Your task to perform on an android device: change notification settings in the gmail app Image 0: 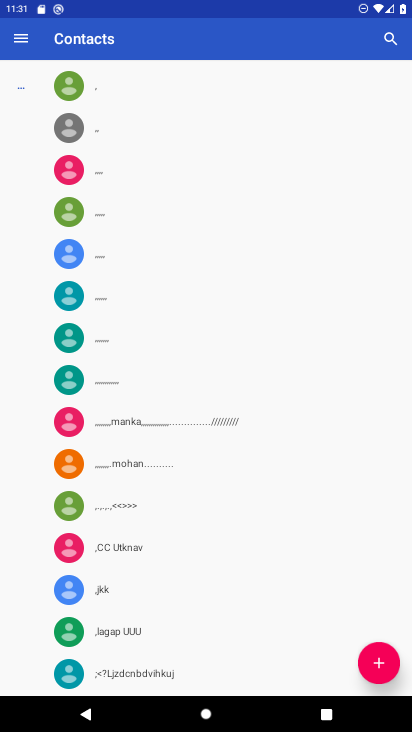
Step 0: press home button
Your task to perform on an android device: change notification settings in the gmail app Image 1: 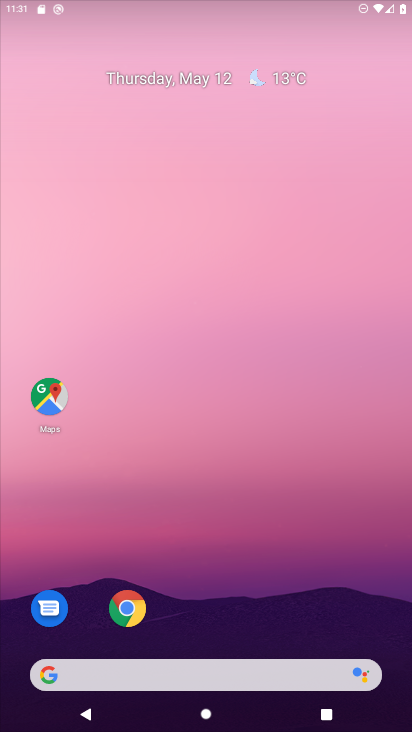
Step 1: drag from (214, 609) to (203, 93)
Your task to perform on an android device: change notification settings in the gmail app Image 2: 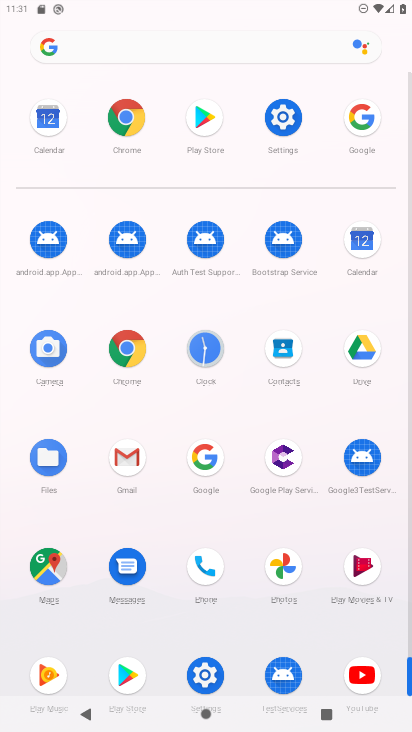
Step 2: click (135, 454)
Your task to perform on an android device: change notification settings in the gmail app Image 3: 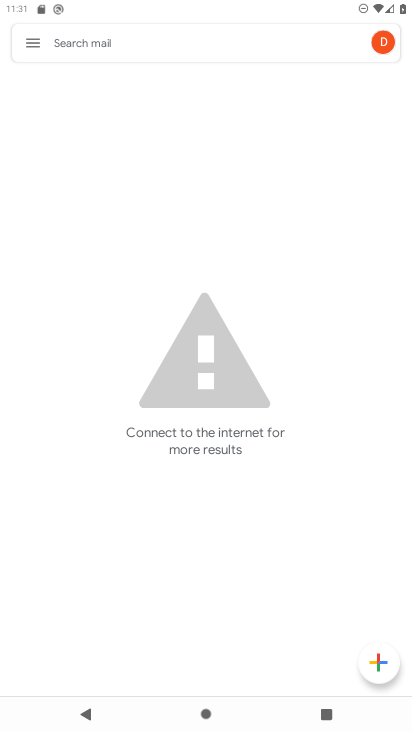
Step 3: click (35, 45)
Your task to perform on an android device: change notification settings in the gmail app Image 4: 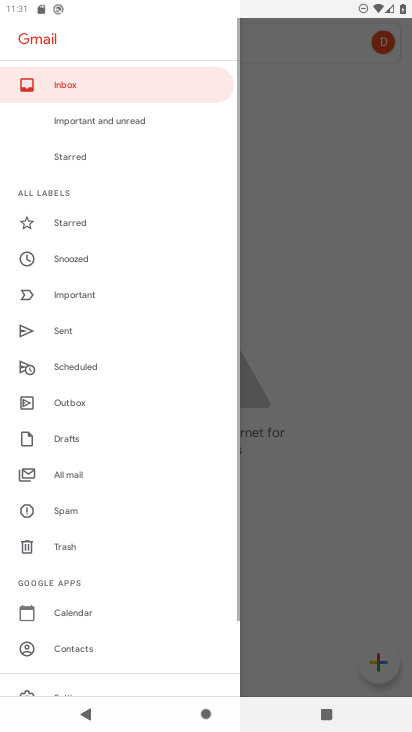
Step 4: drag from (144, 591) to (178, 255)
Your task to perform on an android device: change notification settings in the gmail app Image 5: 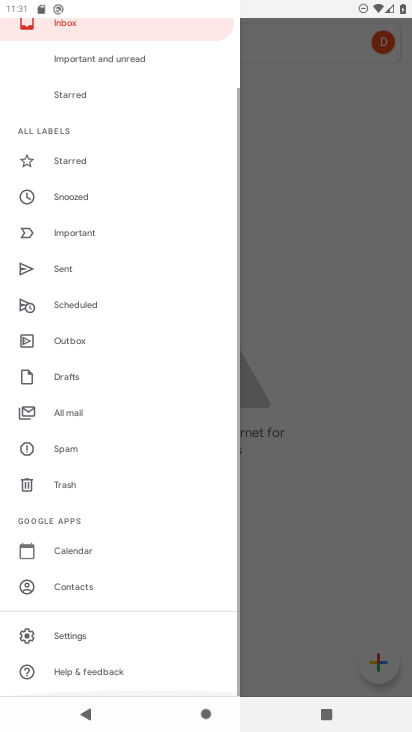
Step 5: click (85, 641)
Your task to perform on an android device: change notification settings in the gmail app Image 6: 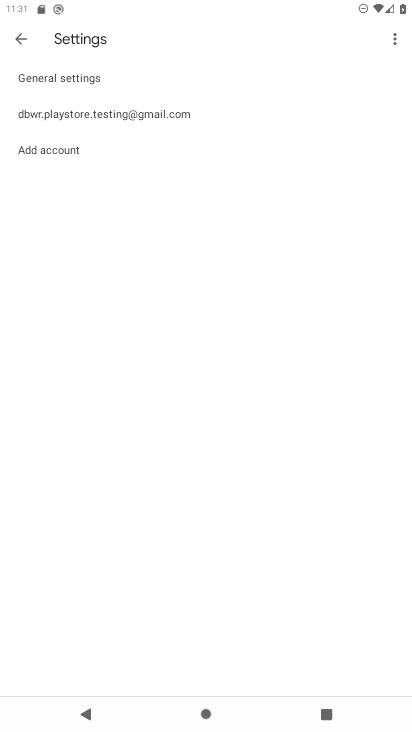
Step 6: click (100, 117)
Your task to perform on an android device: change notification settings in the gmail app Image 7: 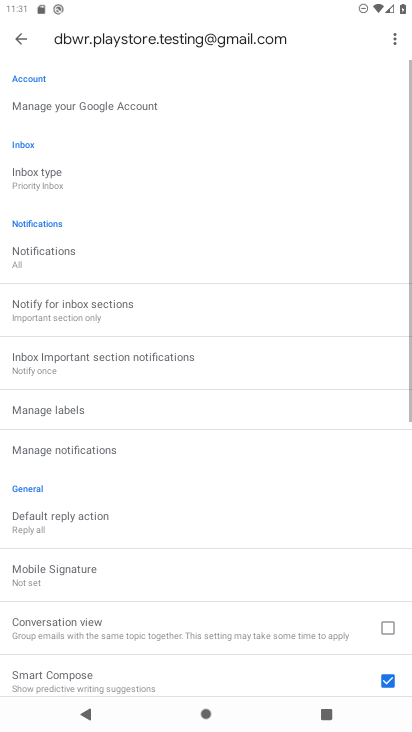
Step 7: click (51, 266)
Your task to perform on an android device: change notification settings in the gmail app Image 8: 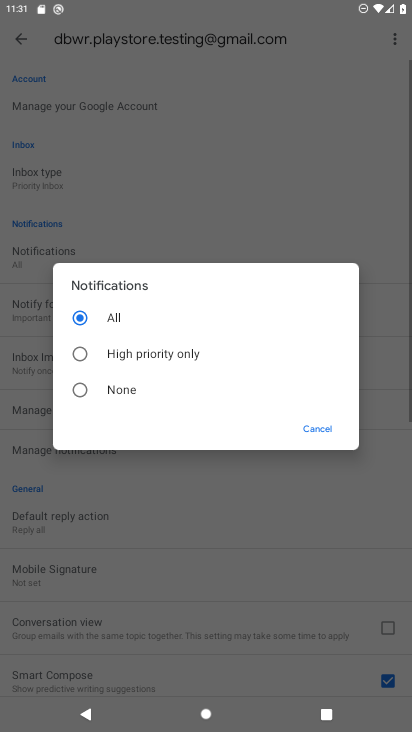
Step 8: click (101, 387)
Your task to perform on an android device: change notification settings in the gmail app Image 9: 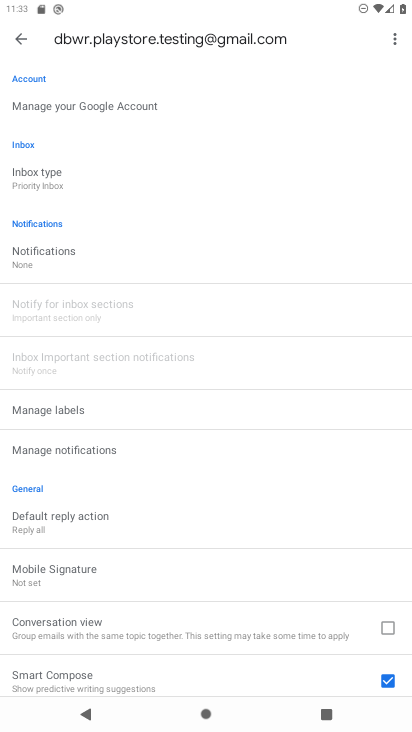
Step 9: task complete